Your task to perform on an android device: Go to calendar. Show me events next week Image 0: 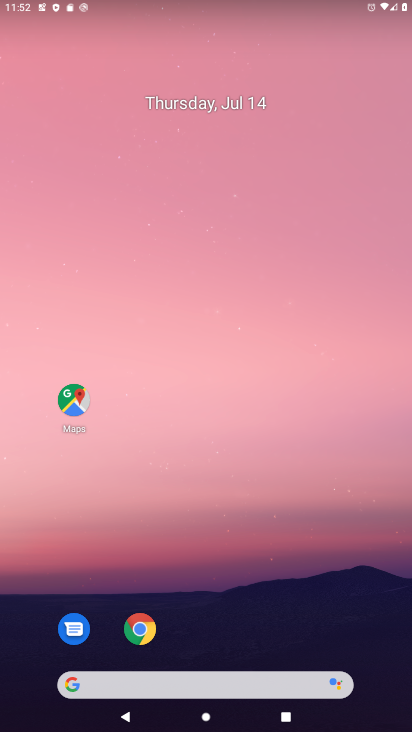
Step 0: press home button
Your task to perform on an android device: Go to calendar. Show me events next week Image 1: 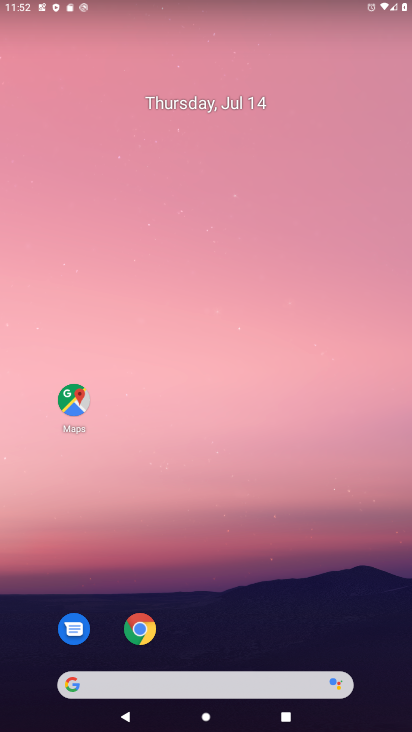
Step 1: drag from (262, 648) to (290, 22)
Your task to perform on an android device: Go to calendar. Show me events next week Image 2: 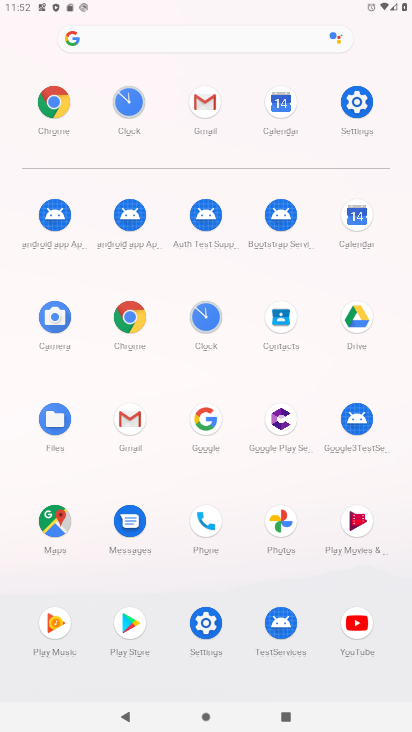
Step 2: click (354, 218)
Your task to perform on an android device: Go to calendar. Show me events next week Image 3: 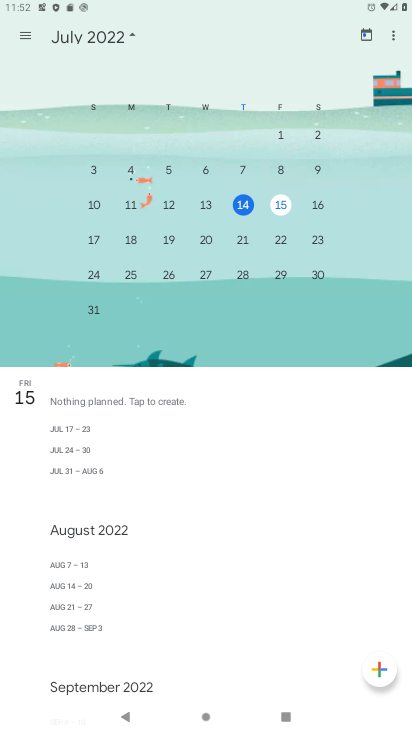
Step 3: click (22, 35)
Your task to perform on an android device: Go to calendar. Show me events next week Image 4: 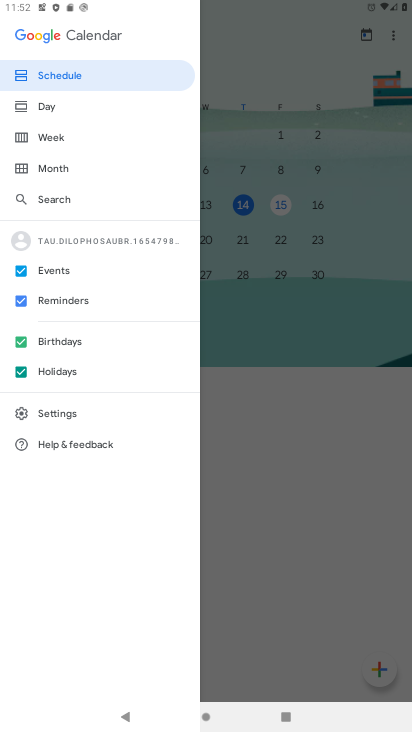
Step 4: click (58, 138)
Your task to perform on an android device: Go to calendar. Show me events next week Image 5: 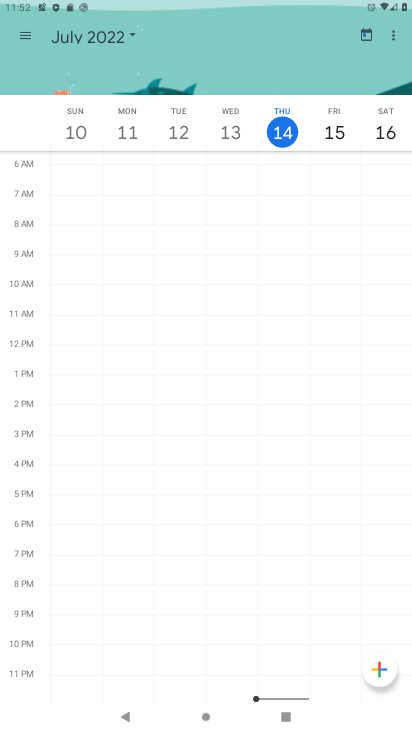
Step 5: task complete